Your task to perform on an android device: Open the map Image 0: 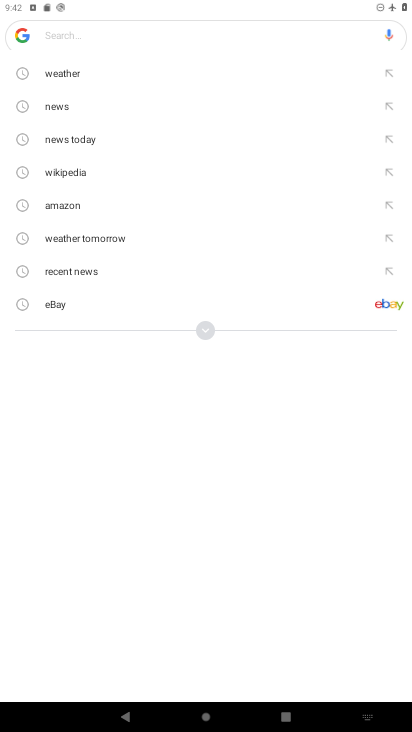
Step 0: press home button
Your task to perform on an android device: Open the map Image 1: 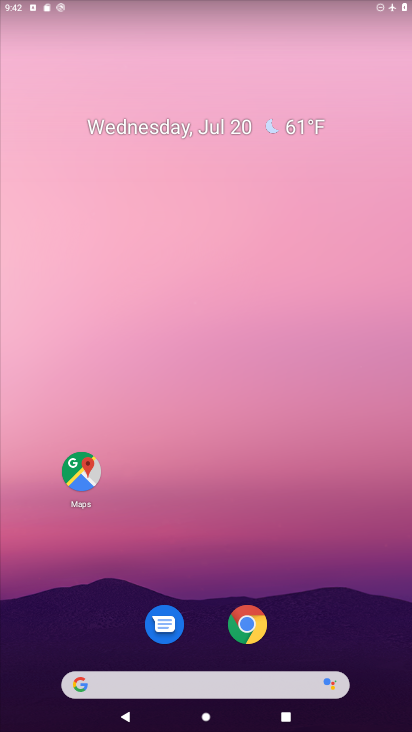
Step 1: click (89, 466)
Your task to perform on an android device: Open the map Image 2: 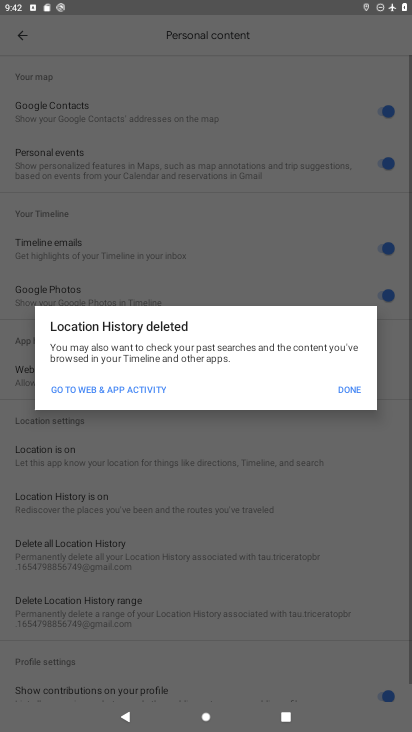
Step 2: click (347, 385)
Your task to perform on an android device: Open the map Image 3: 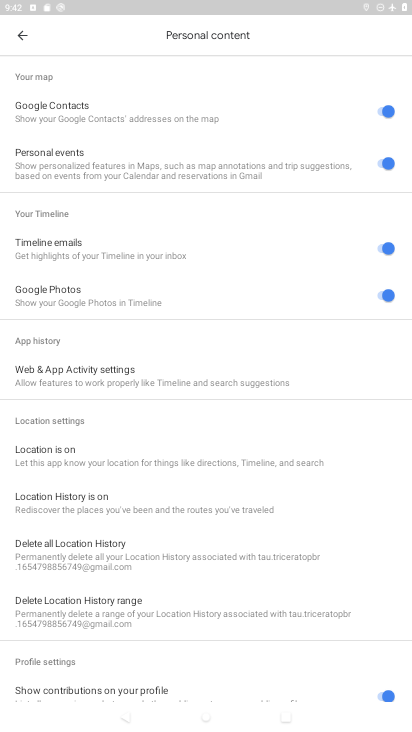
Step 3: click (21, 35)
Your task to perform on an android device: Open the map Image 4: 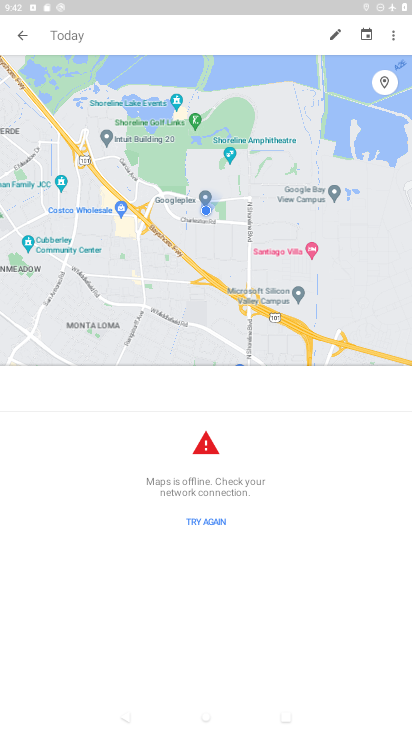
Step 4: task complete